Your task to perform on an android device: turn on showing notifications on the lock screen Image 0: 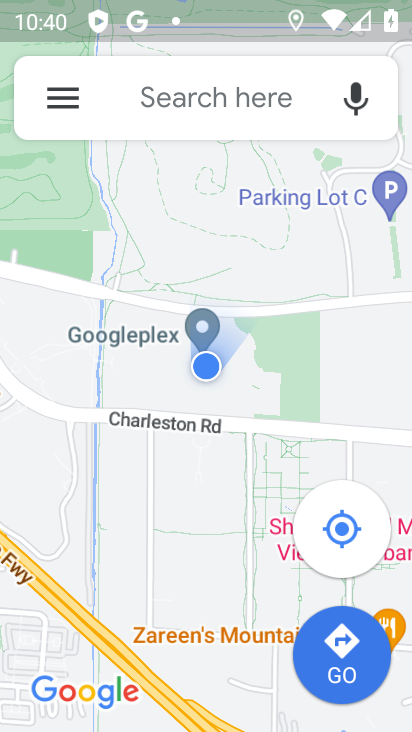
Step 0: press home button
Your task to perform on an android device: turn on showing notifications on the lock screen Image 1: 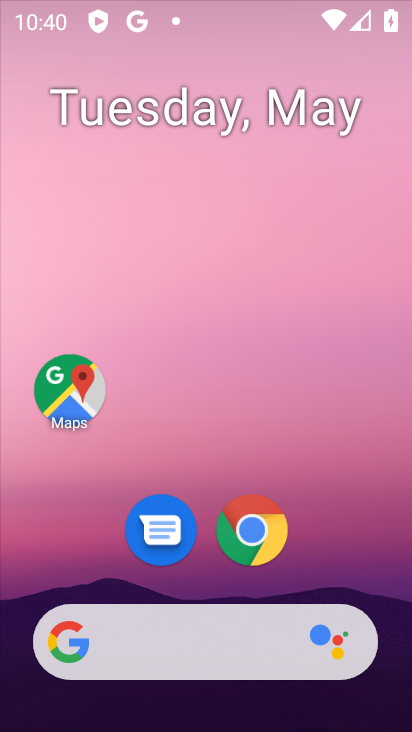
Step 1: drag from (306, 533) to (363, 56)
Your task to perform on an android device: turn on showing notifications on the lock screen Image 2: 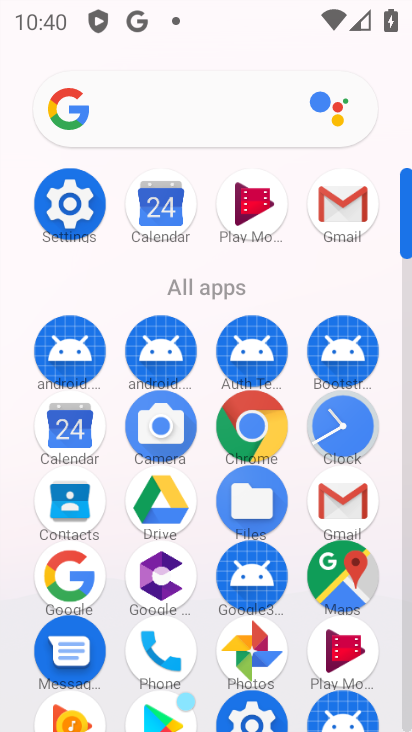
Step 2: click (73, 215)
Your task to perform on an android device: turn on showing notifications on the lock screen Image 3: 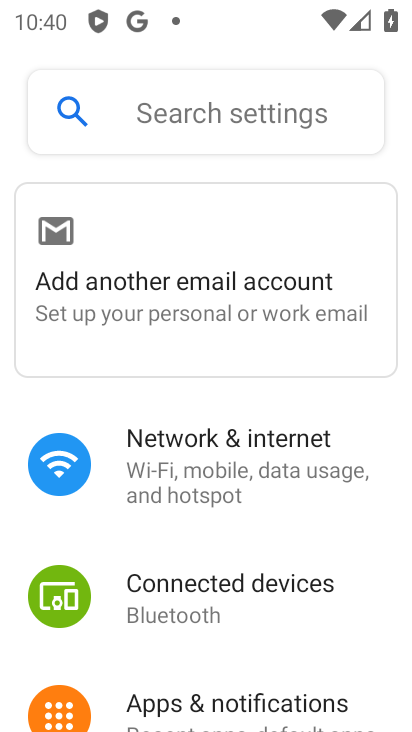
Step 3: drag from (221, 543) to (311, 248)
Your task to perform on an android device: turn on showing notifications on the lock screen Image 4: 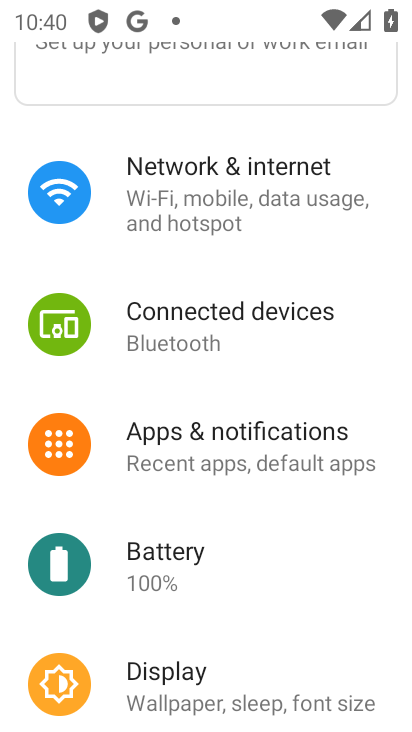
Step 4: click (207, 453)
Your task to perform on an android device: turn on showing notifications on the lock screen Image 5: 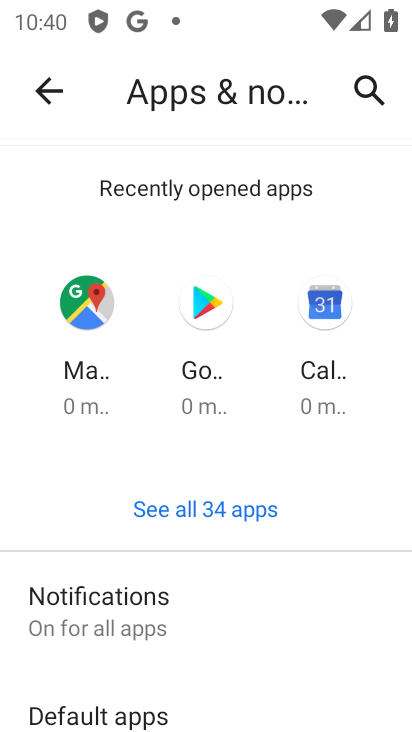
Step 5: click (176, 618)
Your task to perform on an android device: turn on showing notifications on the lock screen Image 6: 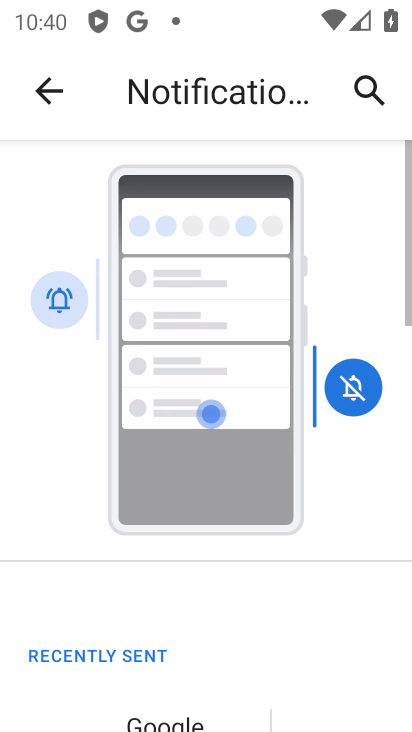
Step 6: drag from (255, 662) to (342, 108)
Your task to perform on an android device: turn on showing notifications on the lock screen Image 7: 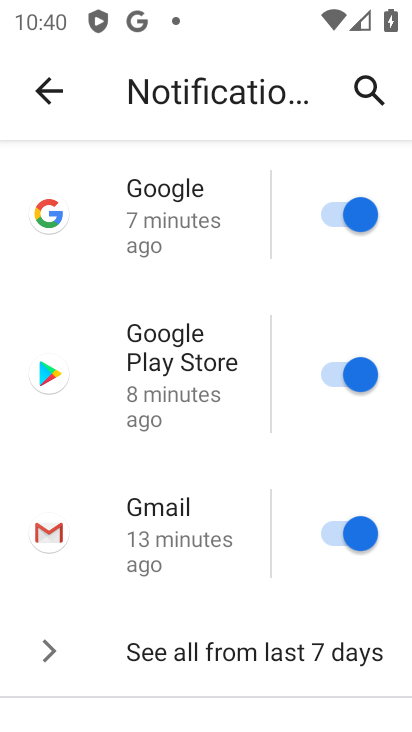
Step 7: drag from (230, 661) to (246, 201)
Your task to perform on an android device: turn on showing notifications on the lock screen Image 8: 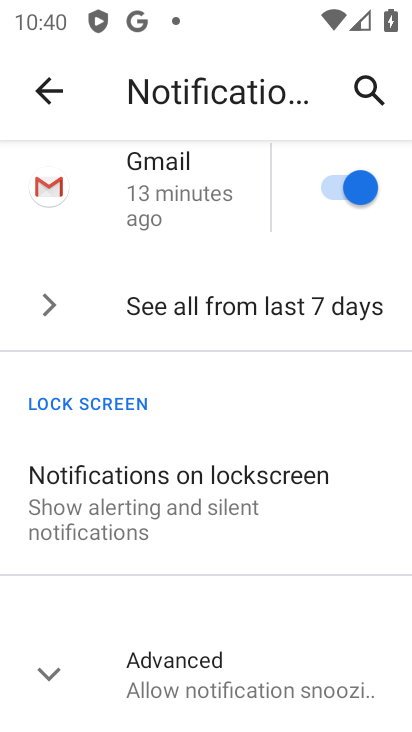
Step 8: click (179, 475)
Your task to perform on an android device: turn on showing notifications on the lock screen Image 9: 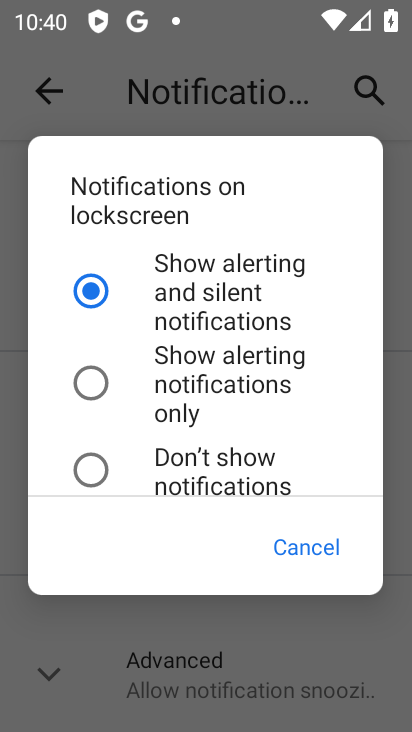
Step 9: click (179, 377)
Your task to perform on an android device: turn on showing notifications on the lock screen Image 10: 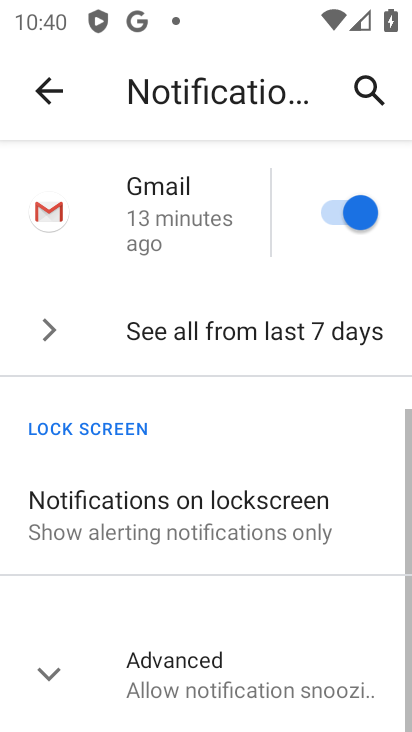
Step 10: task complete